Your task to perform on an android device: turn on showing notifications on the lock screen Image 0: 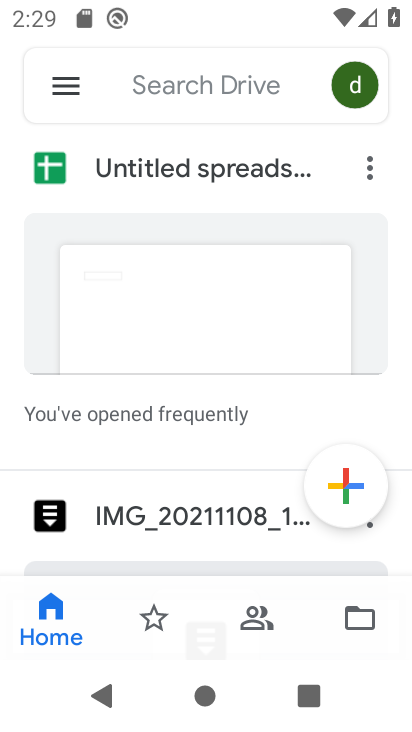
Step 0: press home button
Your task to perform on an android device: turn on showing notifications on the lock screen Image 1: 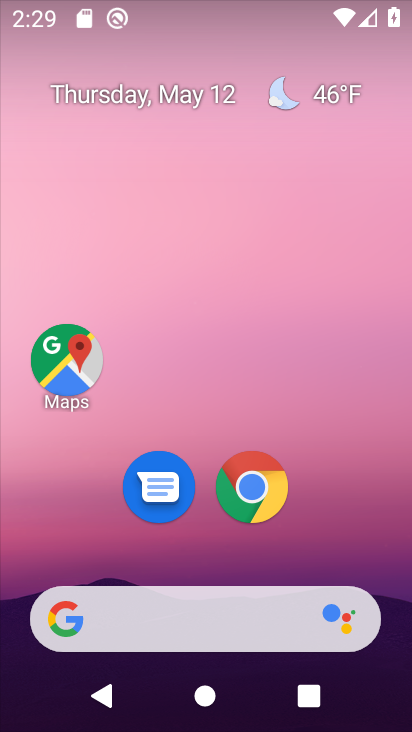
Step 1: drag from (288, 530) to (300, 74)
Your task to perform on an android device: turn on showing notifications on the lock screen Image 2: 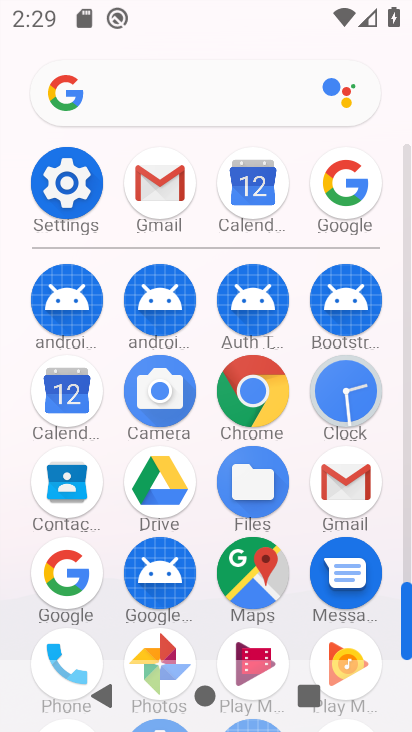
Step 2: click (77, 173)
Your task to perform on an android device: turn on showing notifications on the lock screen Image 3: 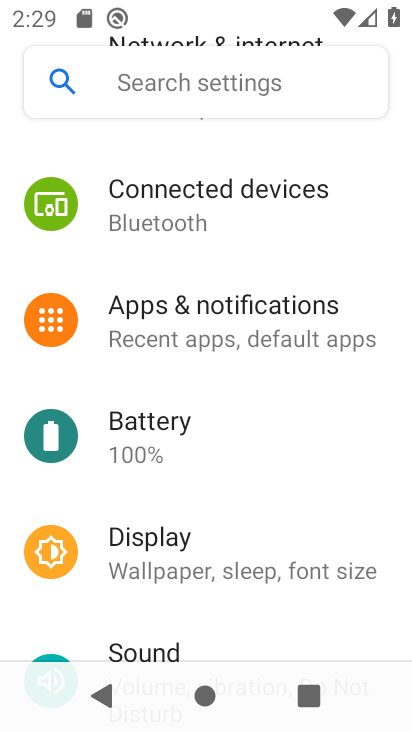
Step 3: click (276, 312)
Your task to perform on an android device: turn on showing notifications on the lock screen Image 4: 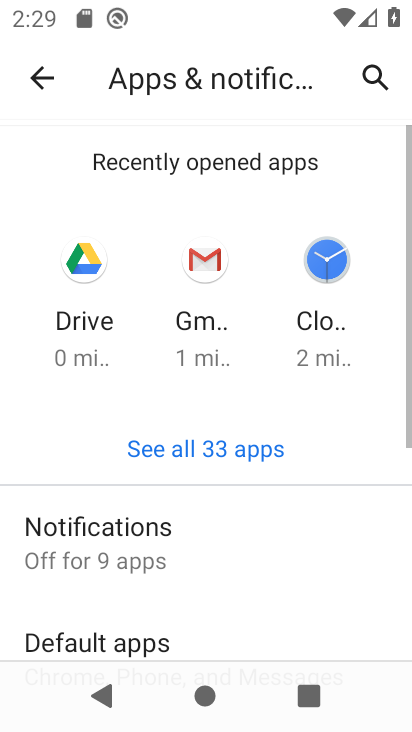
Step 4: click (191, 563)
Your task to perform on an android device: turn on showing notifications on the lock screen Image 5: 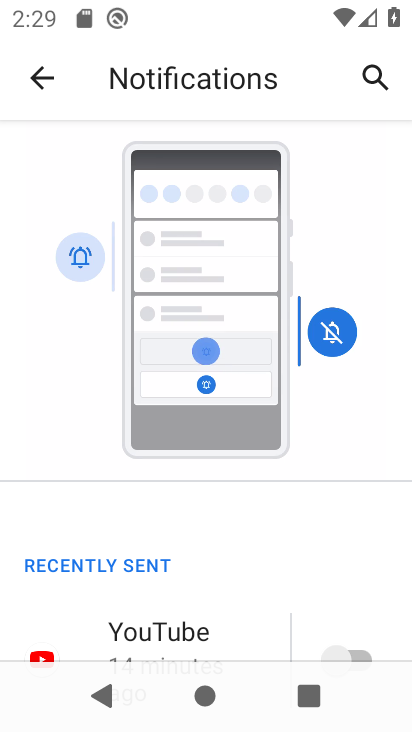
Step 5: drag from (220, 645) to (287, 215)
Your task to perform on an android device: turn on showing notifications on the lock screen Image 6: 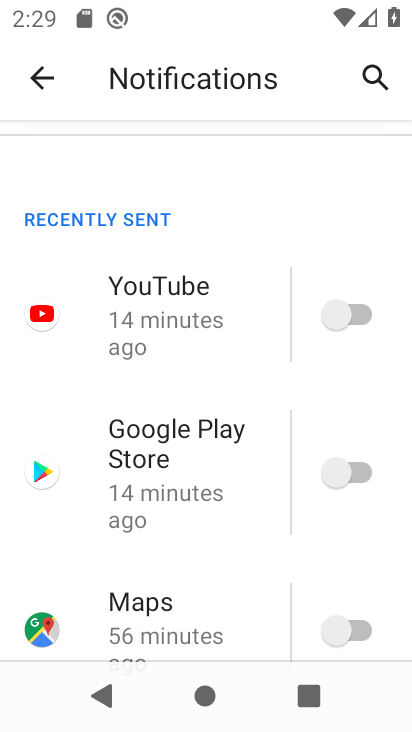
Step 6: drag from (243, 582) to (309, 238)
Your task to perform on an android device: turn on showing notifications on the lock screen Image 7: 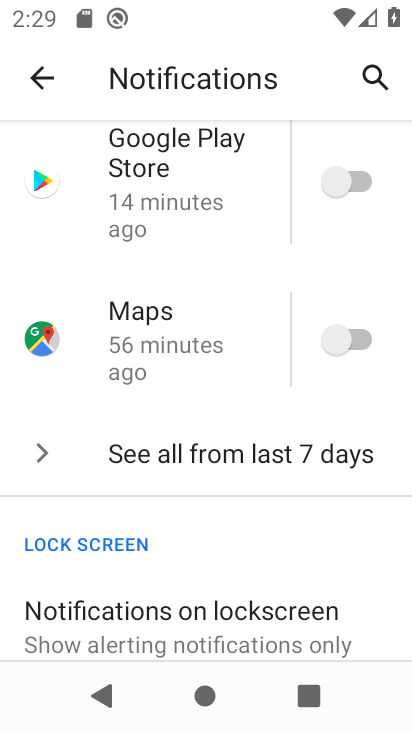
Step 7: drag from (201, 624) to (255, 314)
Your task to perform on an android device: turn on showing notifications on the lock screen Image 8: 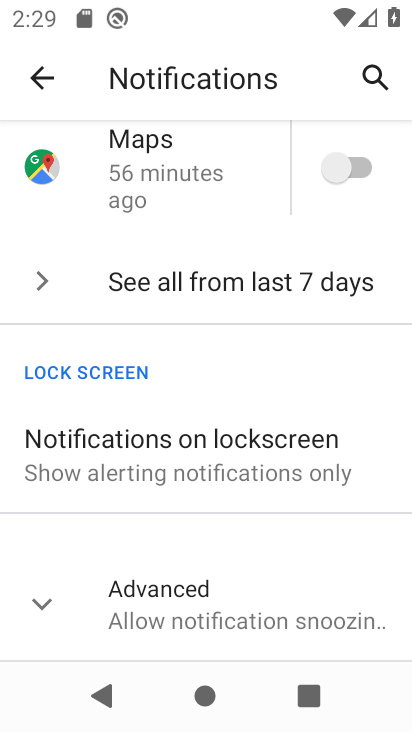
Step 8: click (175, 455)
Your task to perform on an android device: turn on showing notifications on the lock screen Image 9: 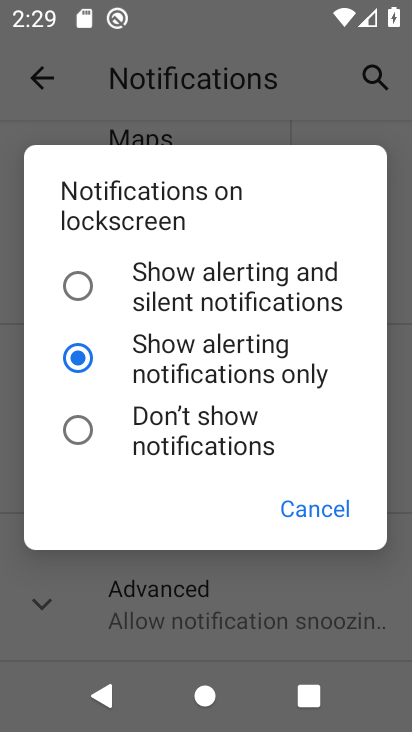
Step 9: click (260, 309)
Your task to perform on an android device: turn on showing notifications on the lock screen Image 10: 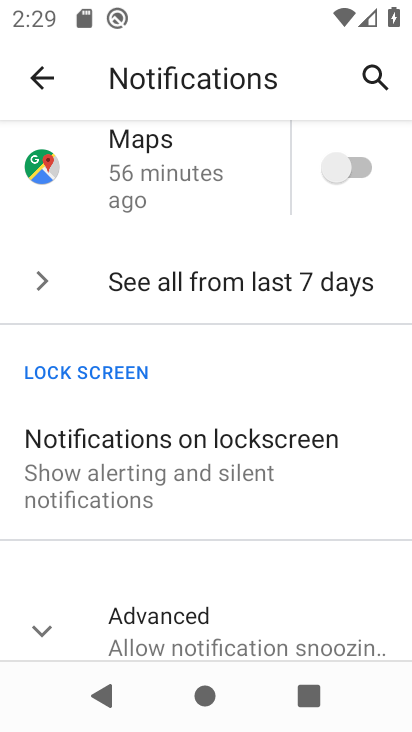
Step 10: task complete